Your task to perform on an android device: change your default location settings in chrome Image 0: 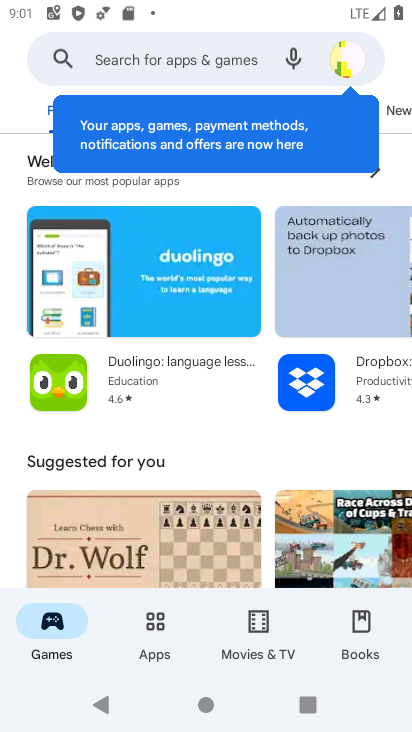
Step 0: press home button
Your task to perform on an android device: change your default location settings in chrome Image 1: 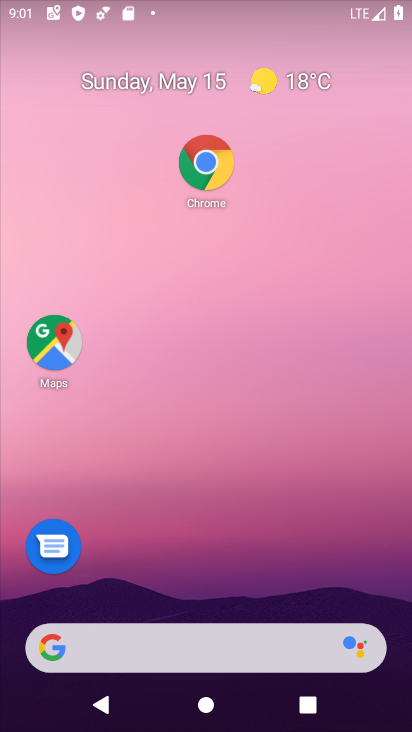
Step 1: drag from (262, 526) to (281, 225)
Your task to perform on an android device: change your default location settings in chrome Image 2: 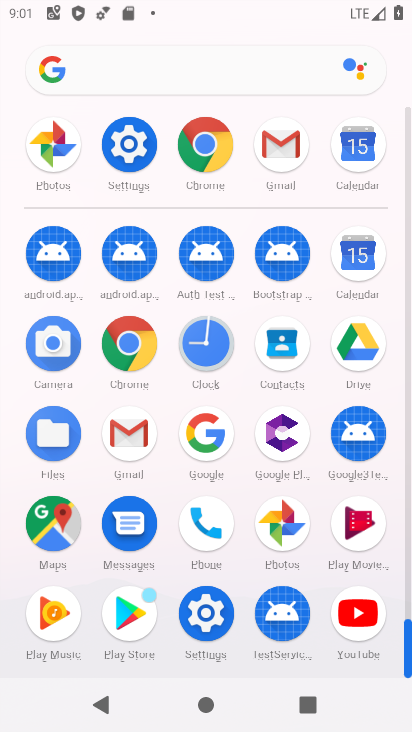
Step 2: click (208, 126)
Your task to perform on an android device: change your default location settings in chrome Image 3: 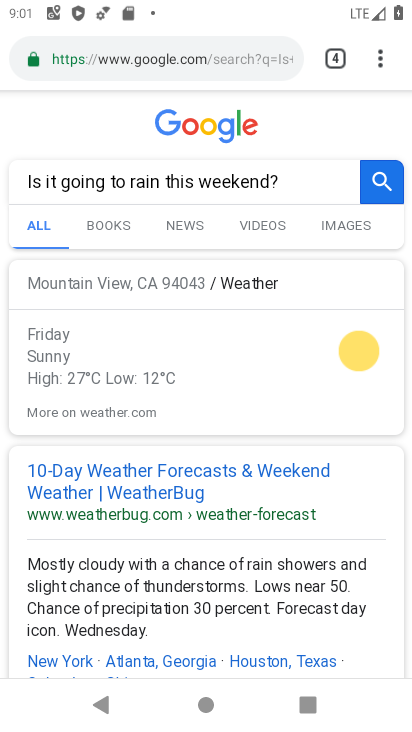
Step 3: click (367, 59)
Your task to perform on an android device: change your default location settings in chrome Image 4: 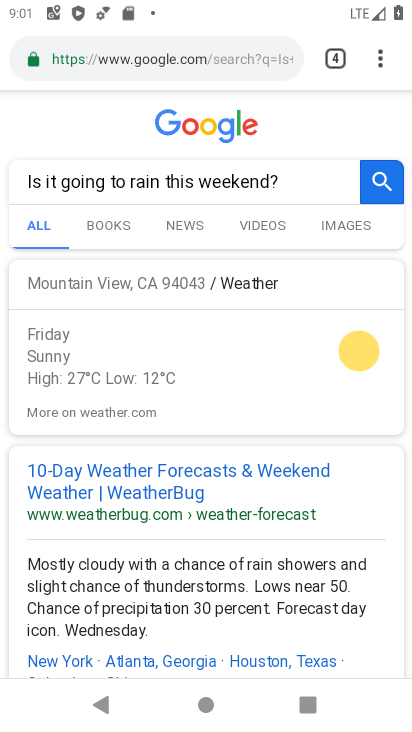
Step 4: click (363, 58)
Your task to perform on an android device: change your default location settings in chrome Image 5: 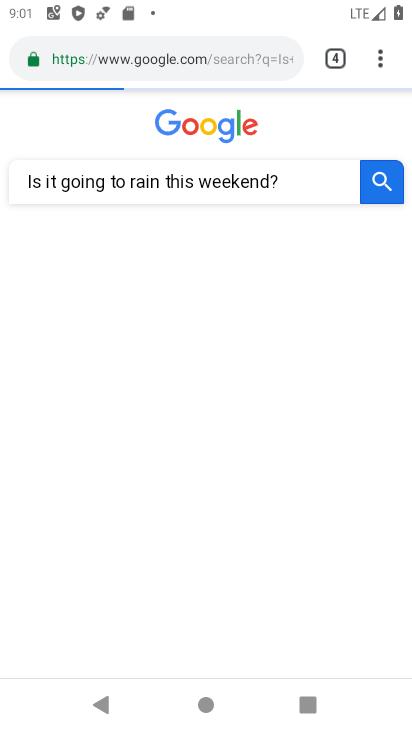
Step 5: click (361, 49)
Your task to perform on an android device: change your default location settings in chrome Image 6: 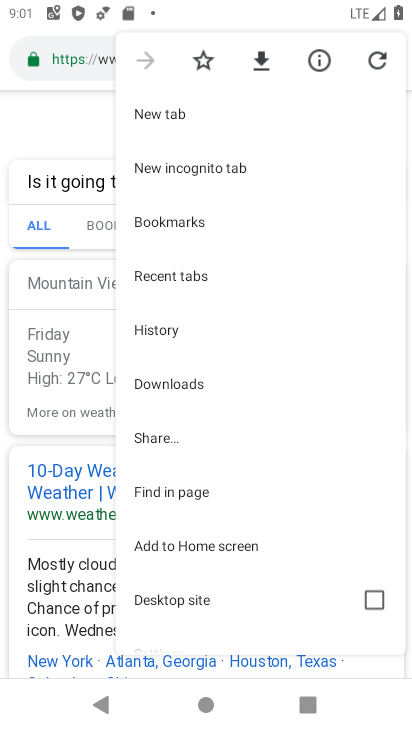
Step 6: drag from (191, 575) to (251, 333)
Your task to perform on an android device: change your default location settings in chrome Image 7: 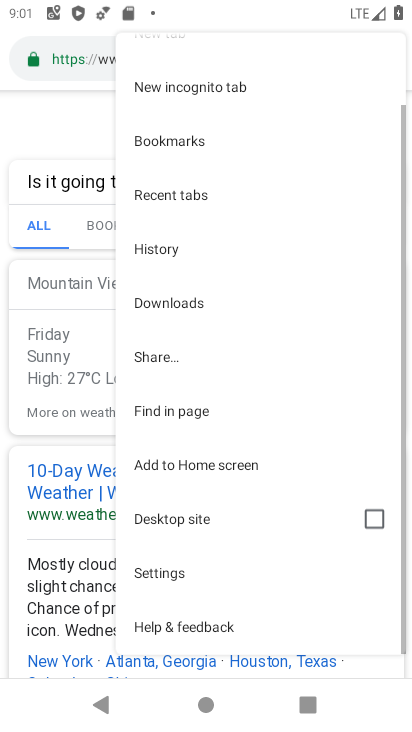
Step 7: click (172, 579)
Your task to perform on an android device: change your default location settings in chrome Image 8: 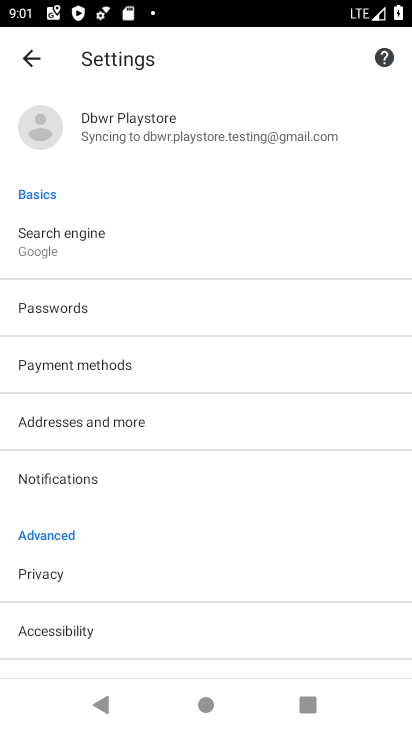
Step 8: drag from (121, 545) to (186, 287)
Your task to perform on an android device: change your default location settings in chrome Image 9: 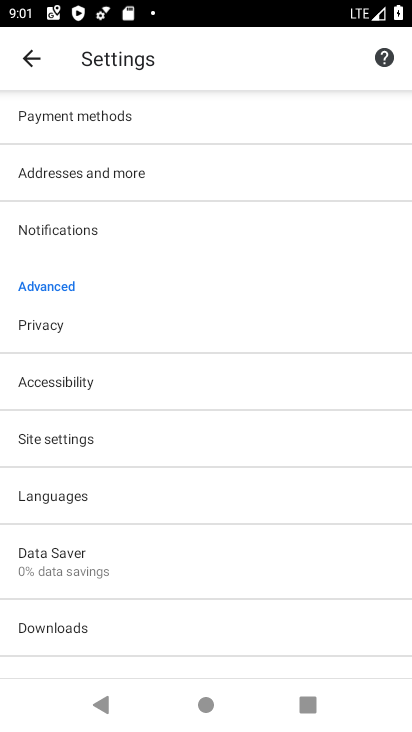
Step 9: click (91, 441)
Your task to perform on an android device: change your default location settings in chrome Image 10: 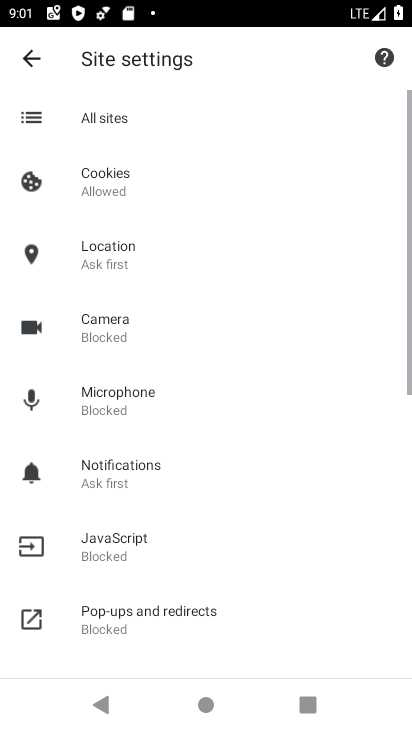
Step 10: click (125, 238)
Your task to perform on an android device: change your default location settings in chrome Image 11: 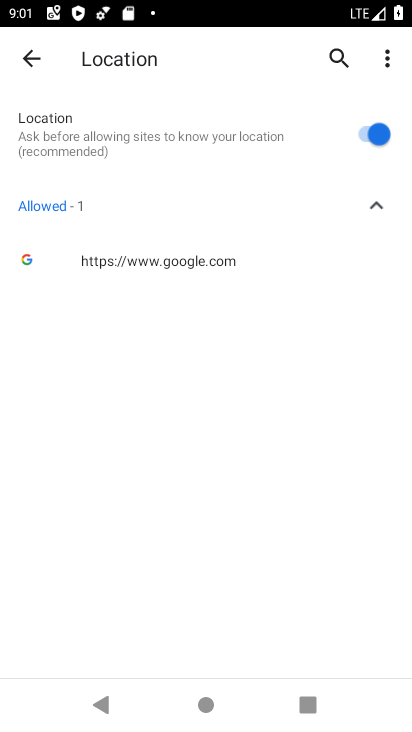
Step 11: click (359, 134)
Your task to perform on an android device: change your default location settings in chrome Image 12: 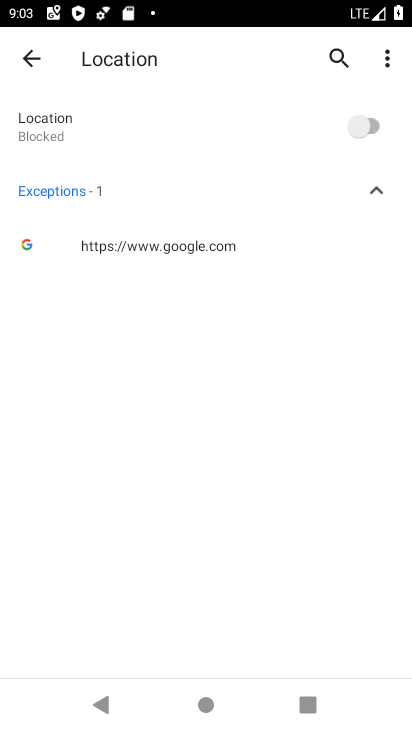
Step 12: task complete